Your task to perform on an android device: Turn on the flashlight Image 0: 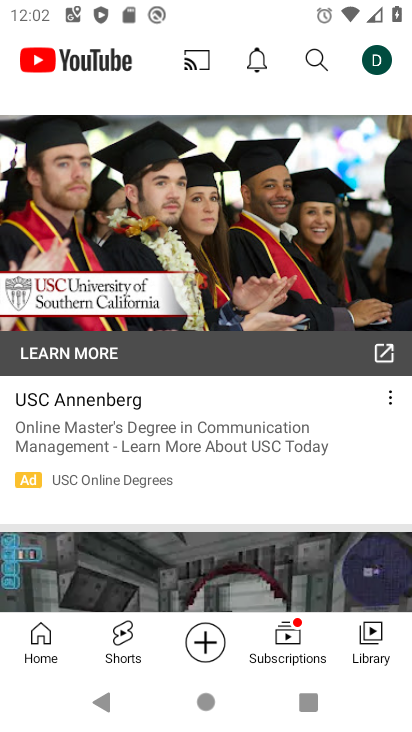
Step 0: click (312, 496)
Your task to perform on an android device: Turn on the flashlight Image 1: 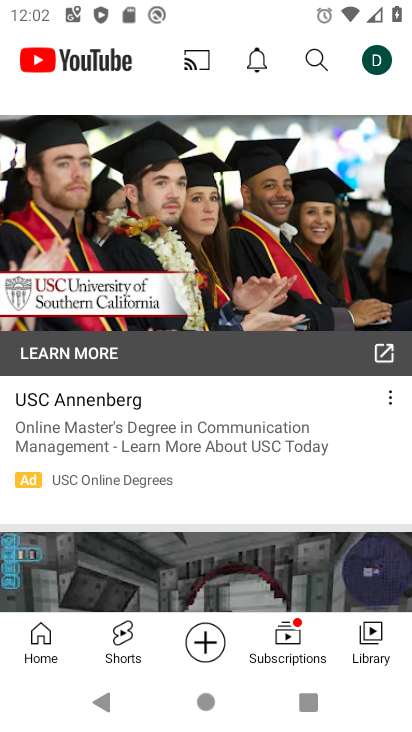
Step 1: task complete